Your task to perform on an android device: check data usage Image 0: 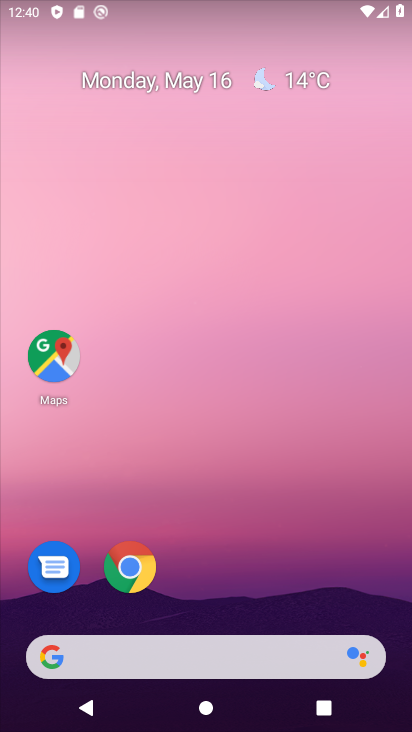
Step 0: drag from (259, 547) to (197, 109)
Your task to perform on an android device: check data usage Image 1: 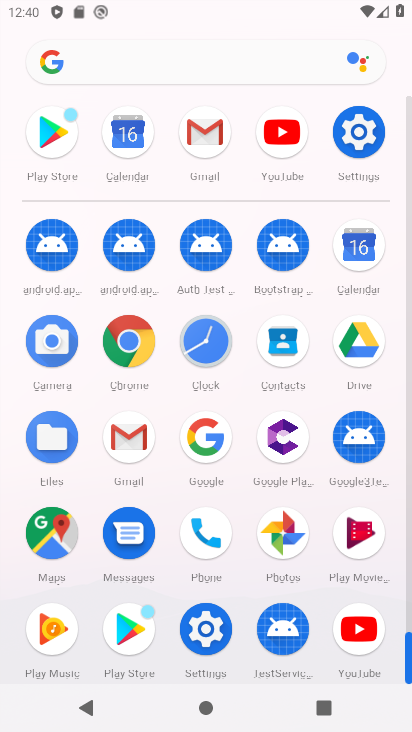
Step 1: click (356, 136)
Your task to perform on an android device: check data usage Image 2: 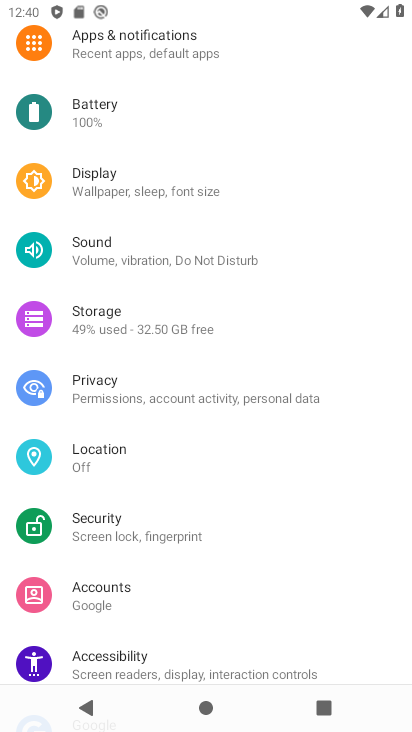
Step 2: drag from (205, 155) to (369, 694)
Your task to perform on an android device: check data usage Image 3: 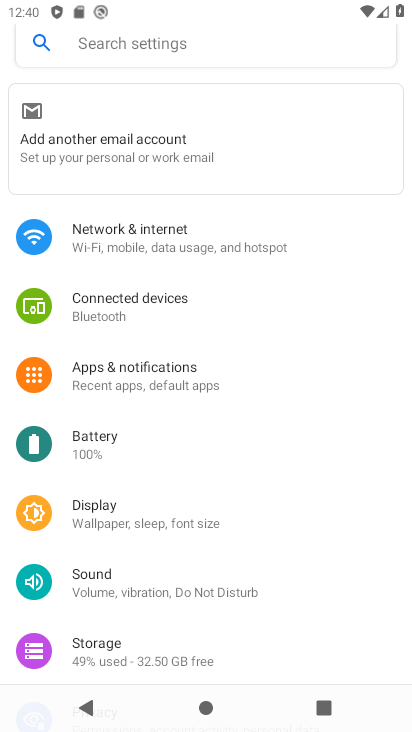
Step 3: click (135, 226)
Your task to perform on an android device: check data usage Image 4: 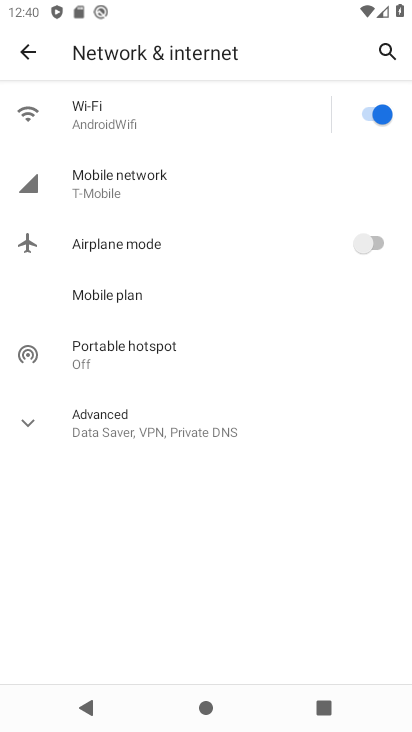
Step 4: click (139, 189)
Your task to perform on an android device: check data usage Image 5: 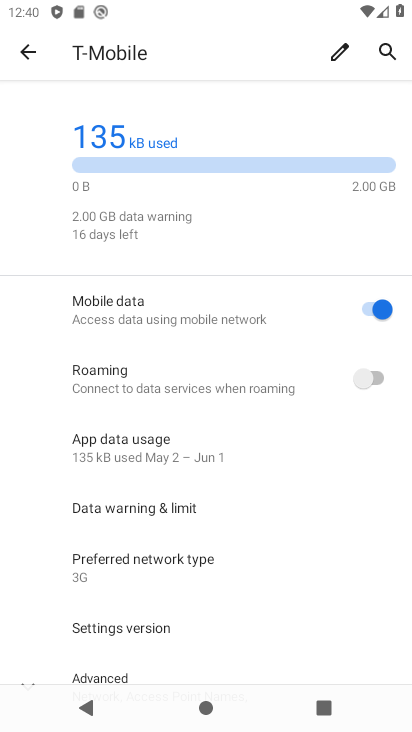
Step 5: task complete